Your task to perform on an android device: Open notification settings Image 0: 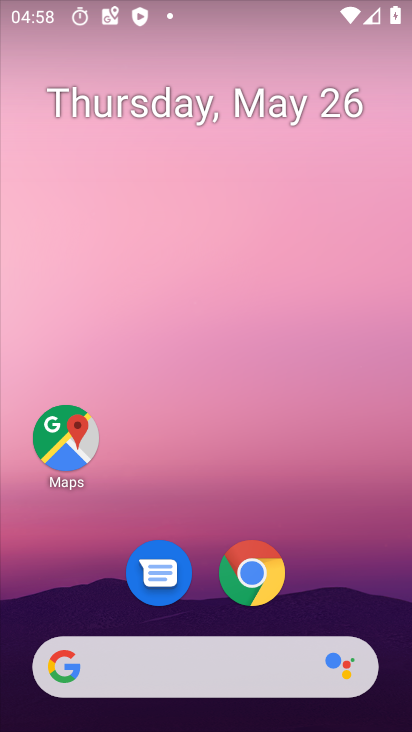
Step 0: drag from (301, 604) to (223, 87)
Your task to perform on an android device: Open notification settings Image 1: 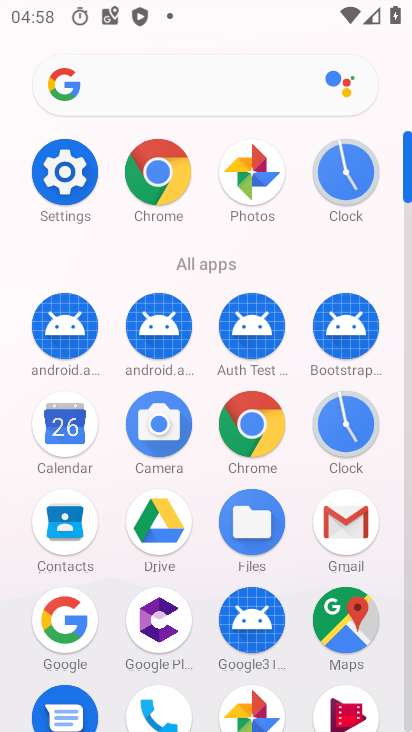
Step 1: click (65, 188)
Your task to perform on an android device: Open notification settings Image 2: 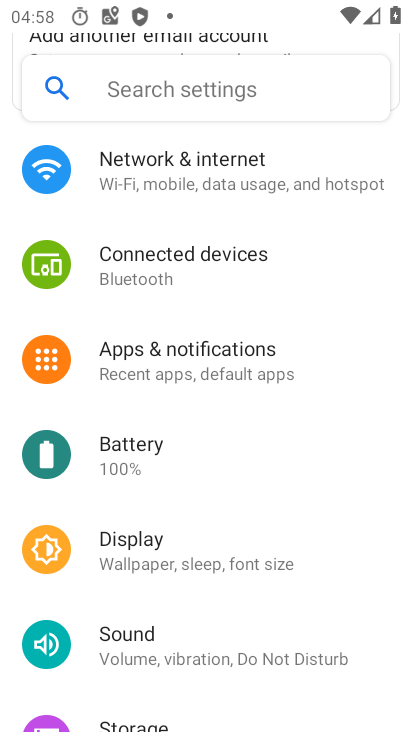
Step 2: click (167, 373)
Your task to perform on an android device: Open notification settings Image 3: 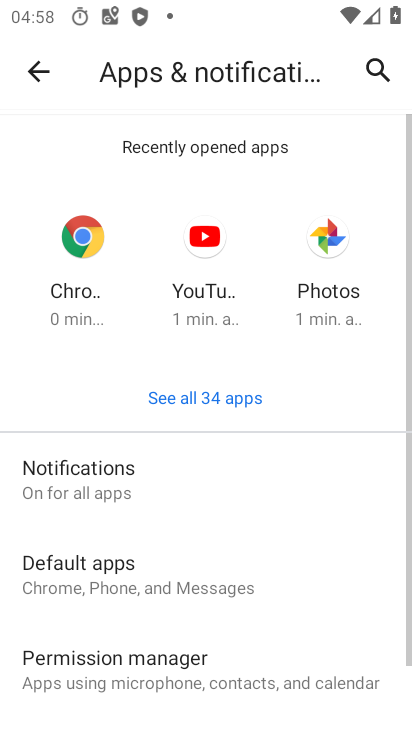
Step 3: click (123, 477)
Your task to perform on an android device: Open notification settings Image 4: 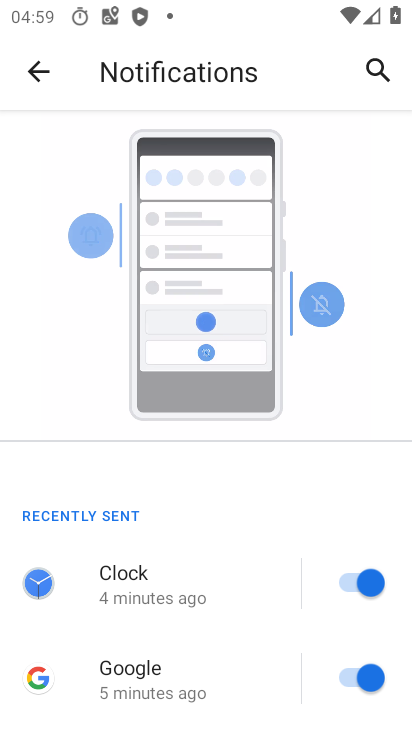
Step 4: task complete